Your task to perform on an android device: toggle priority inbox in the gmail app Image 0: 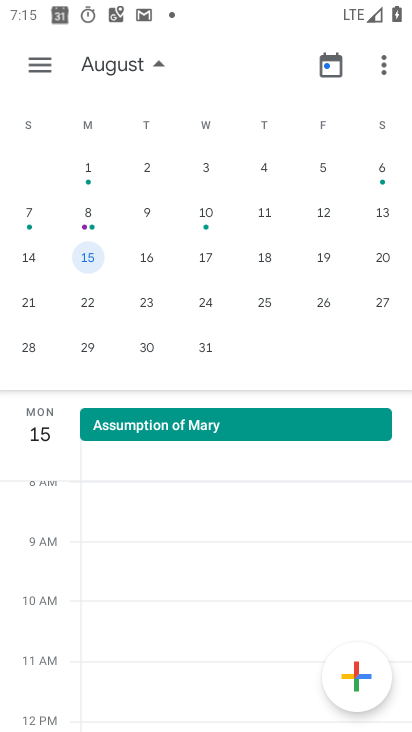
Step 0: press home button
Your task to perform on an android device: toggle priority inbox in the gmail app Image 1: 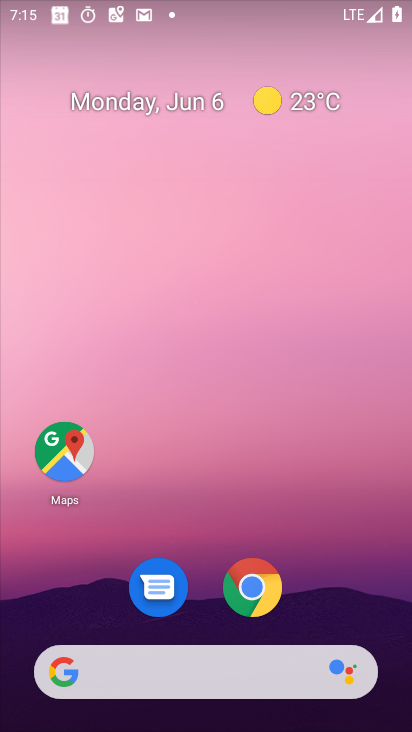
Step 1: drag from (402, 671) to (311, 20)
Your task to perform on an android device: toggle priority inbox in the gmail app Image 2: 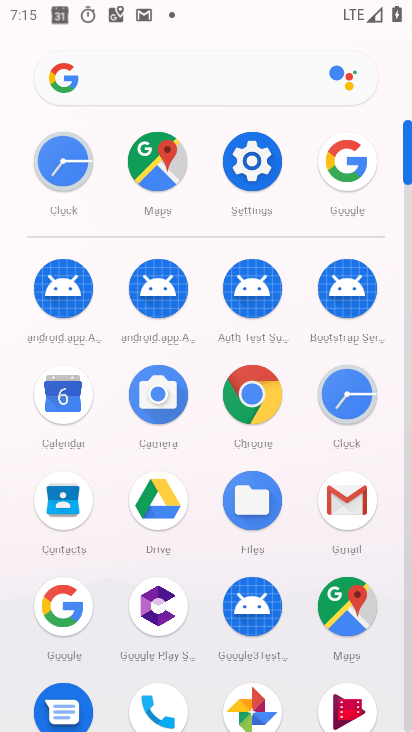
Step 2: click (363, 496)
Your task to perform on an android device: toggle priority inbox in the gmail app Image 3: 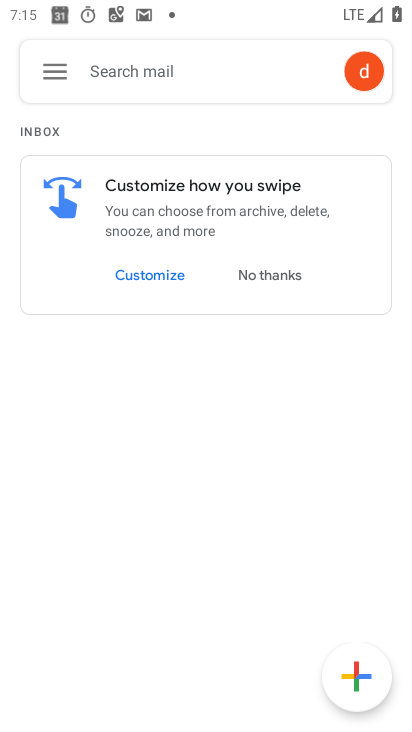
Step 3: click (39, 73)
Your task to perform on an android device: toggle priority inbox in the gmail app Image 4: 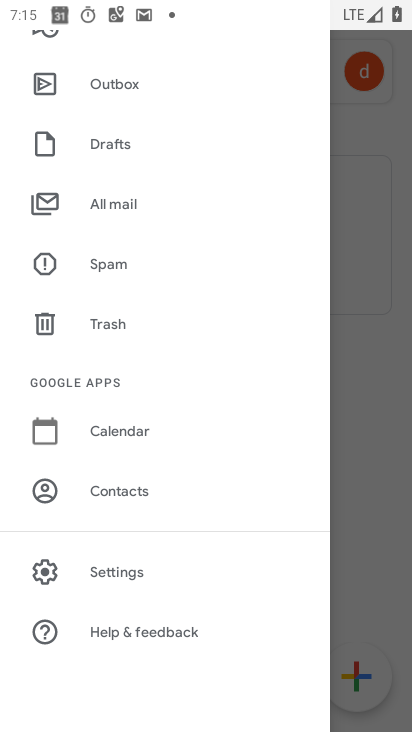
Step 4: click (134, 579)
Your task to perform on an android device: toggle priority inbox in the gmail app Image 5: 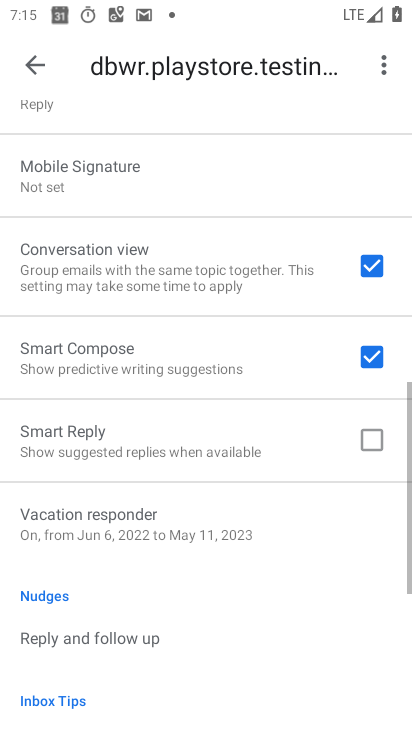
Step 5: drag from (148, 231) to (126, 725)
Your task to perform on an android device: toggle priority inbox in the gmail app Image 6: 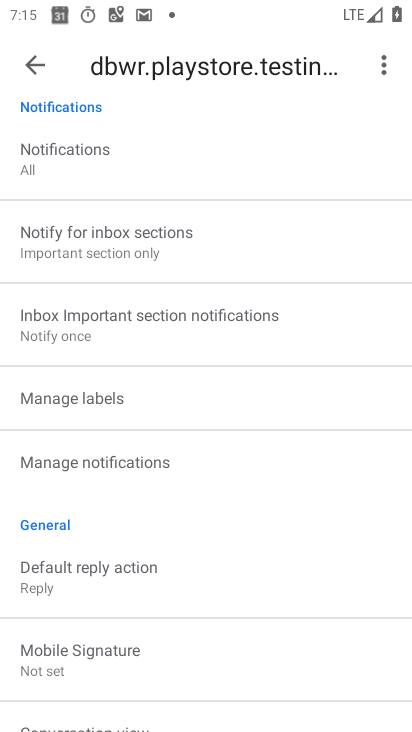
Step 6: drag from (174, 178) to (152, 721)
Your task to perform on an android device: toggle priority inbox in the gmail app Image 7: 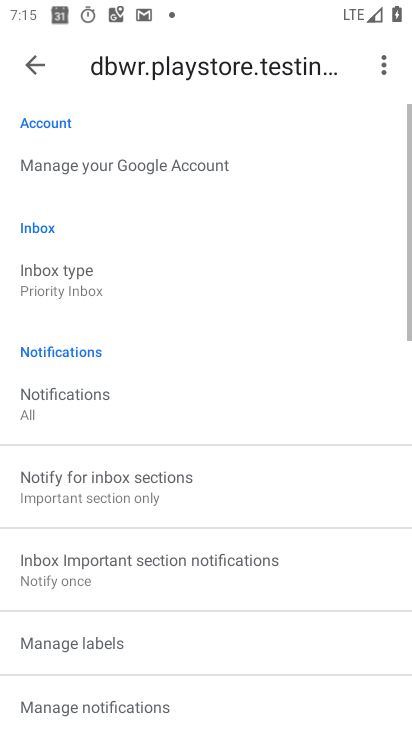
Step 7: click (145, 277)
Your task to perform on an android device: toggle priority inbox in the gmail app Image 8: 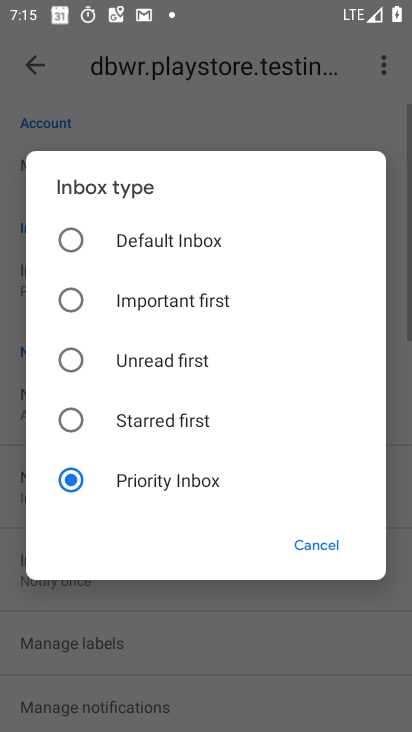
Step 8: click (82, 242)
Your task to perform on an android device: toggle priority inbox in the gmail app Image 9: 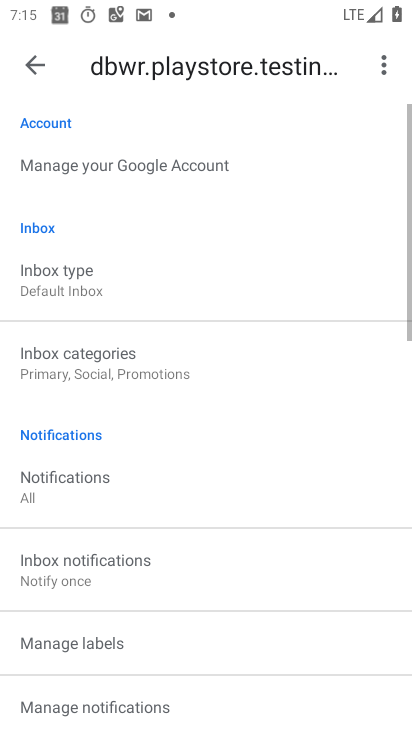
Step 9: task complete